Your task to perform on an android device: See recent photos Image 0: 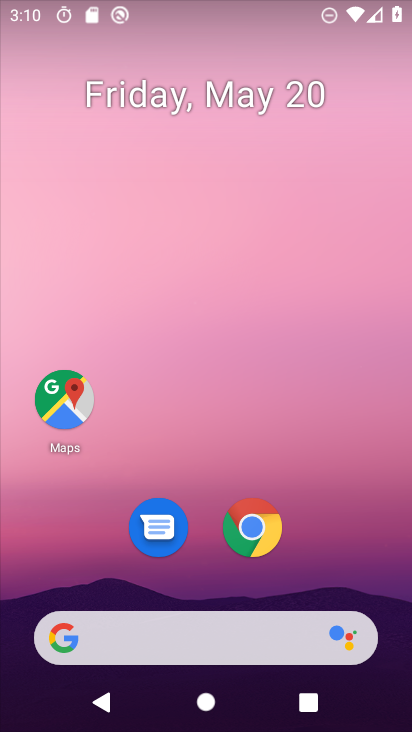
Step 0: drag from (165, 543) to (228, 58)
Your task to perform on an android device: See recent photos Image 1: 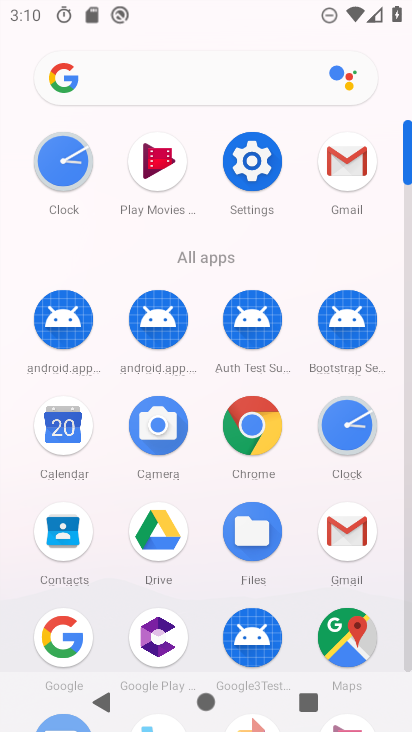
Step 1: drag from (225, 599) to (247, 130)
Your task to perform on an android device: See recent photos Image 2: 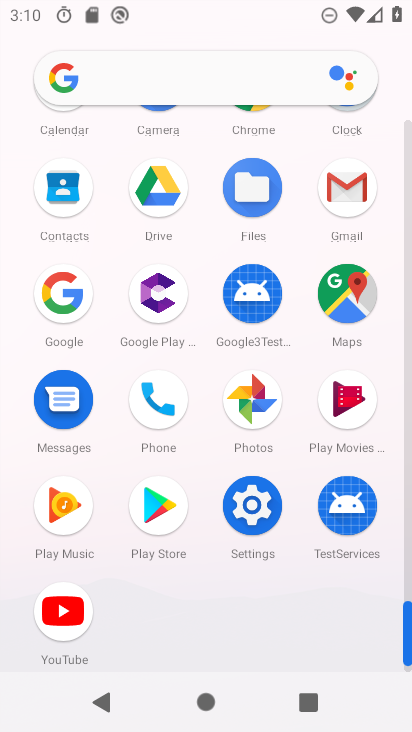
Step 2: click (260, 412)
Your task to perform on an android device: See recent photos Image 3: 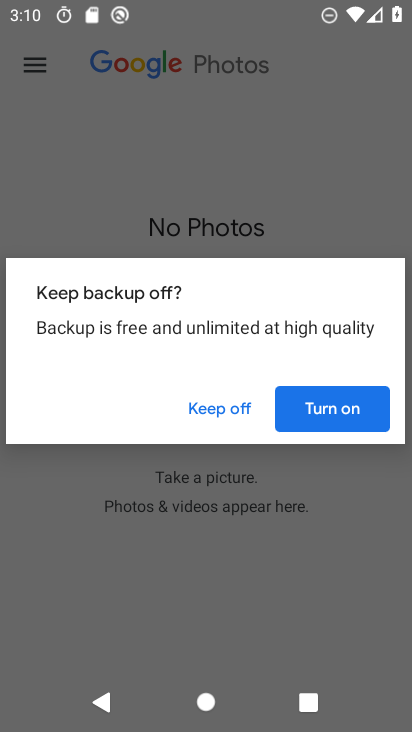
Step 3: click (213, 410)
Your task to perform on an android device: See recent photos Image 4: 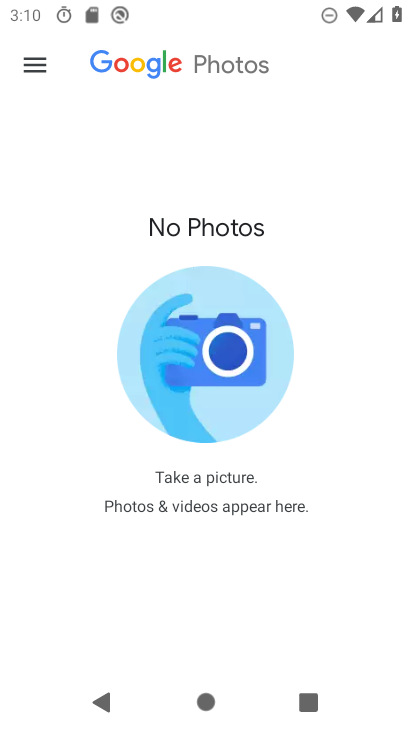
Step 4: task complete